Your task to perform on an android device: open app "Google Play Games" Image 0: 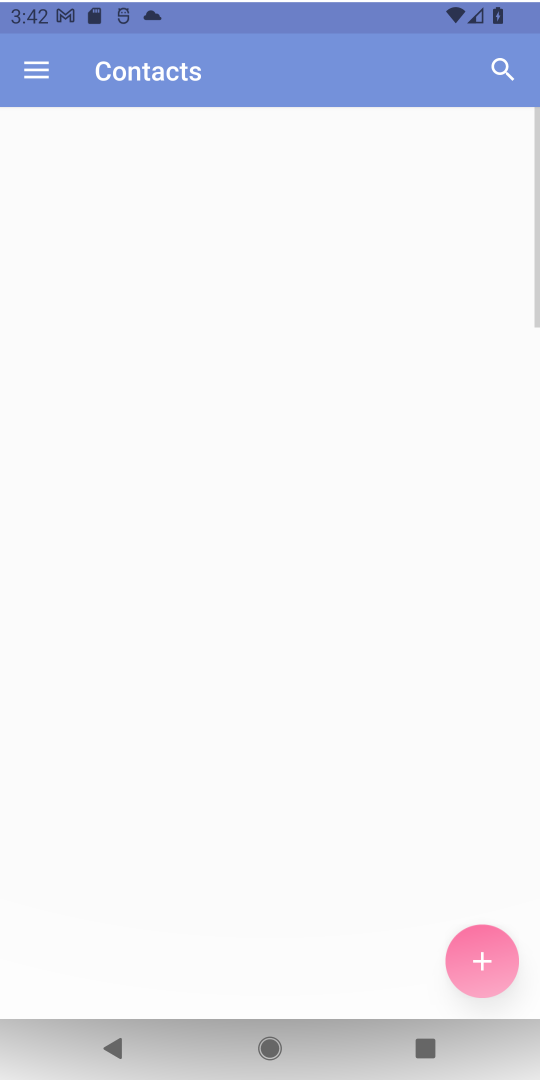
Step 0: press back button
Your task to perform on an android device: open app "Google Play Games" Image 1: 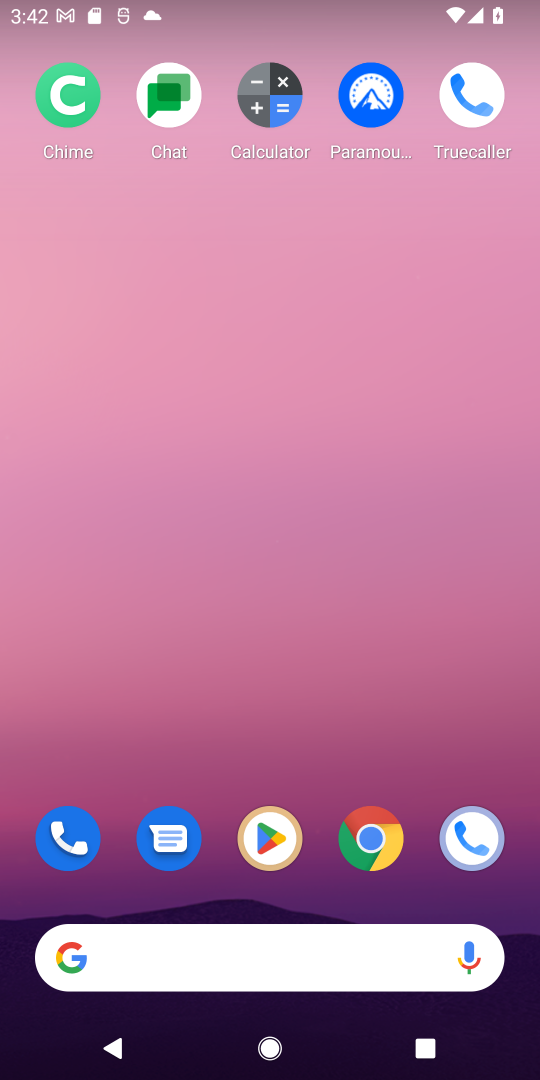
Step 1: click (276, 825)
Your task to perform on an android device: open app "Google Play Games" Image 2: 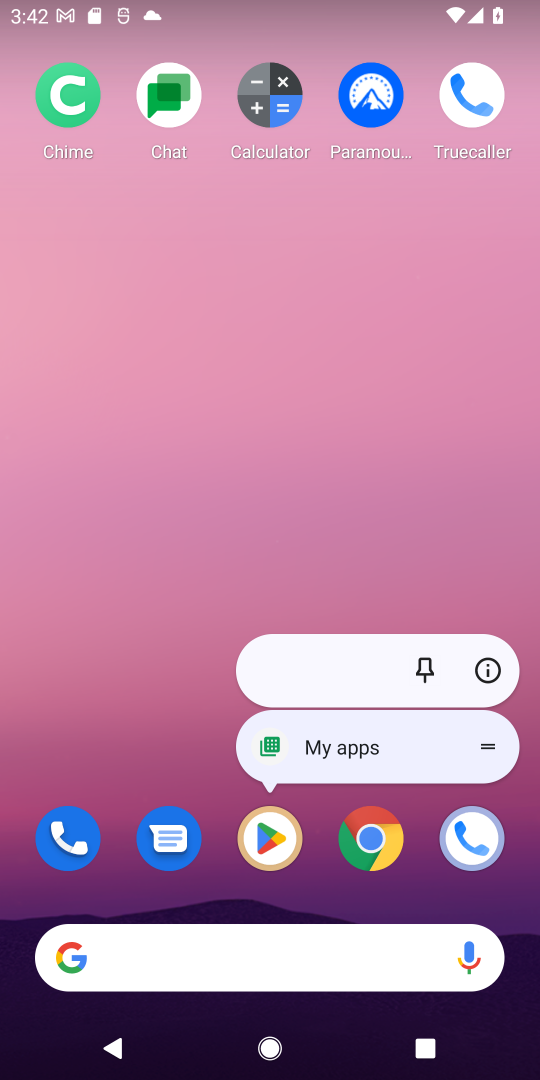
Step 2: click (265, 882)
Your task to perform on an android device: open app "Google Play Games" Image 3: 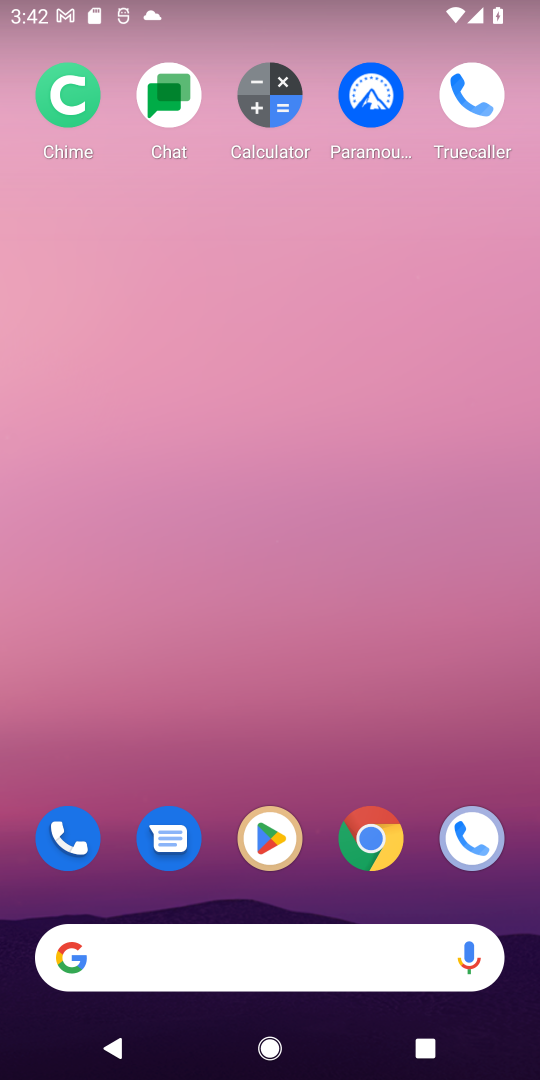
Step 3: click (276, 848)
Your task to perform on an android device: open app "Google Play Games" Image 4: 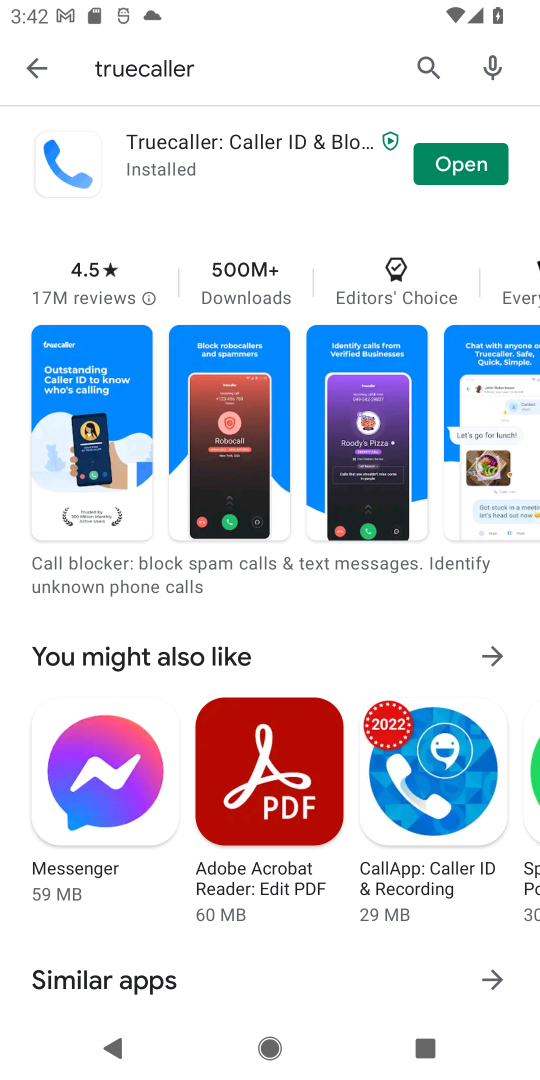
Step 4: click (425, 73)
Your task to perform on an android device: open app "Google Play Games" Image 5: 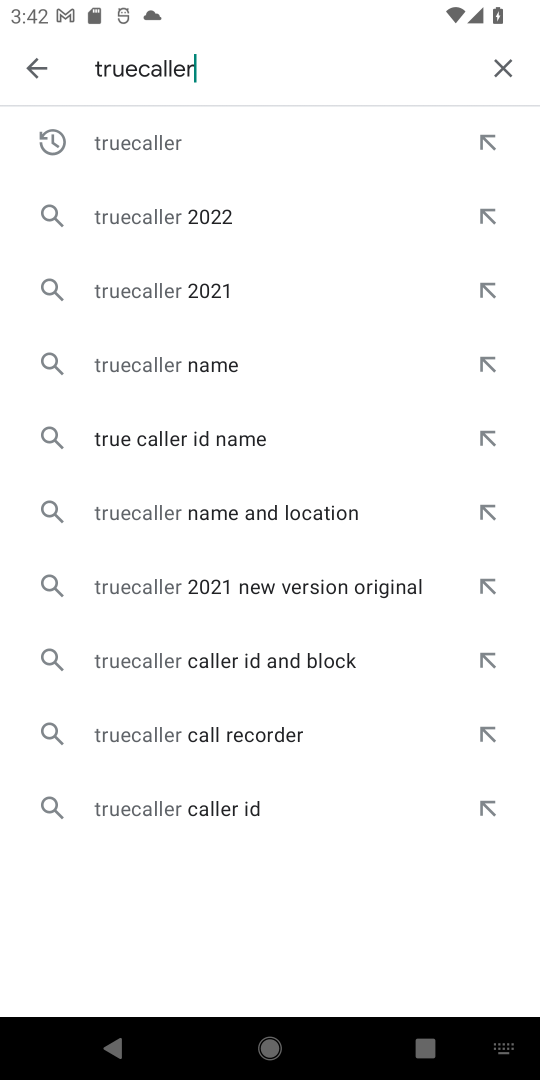
Step 5: click (493, 67)
Your task to perform on an android device: open app "Google Play Games" Image 6: 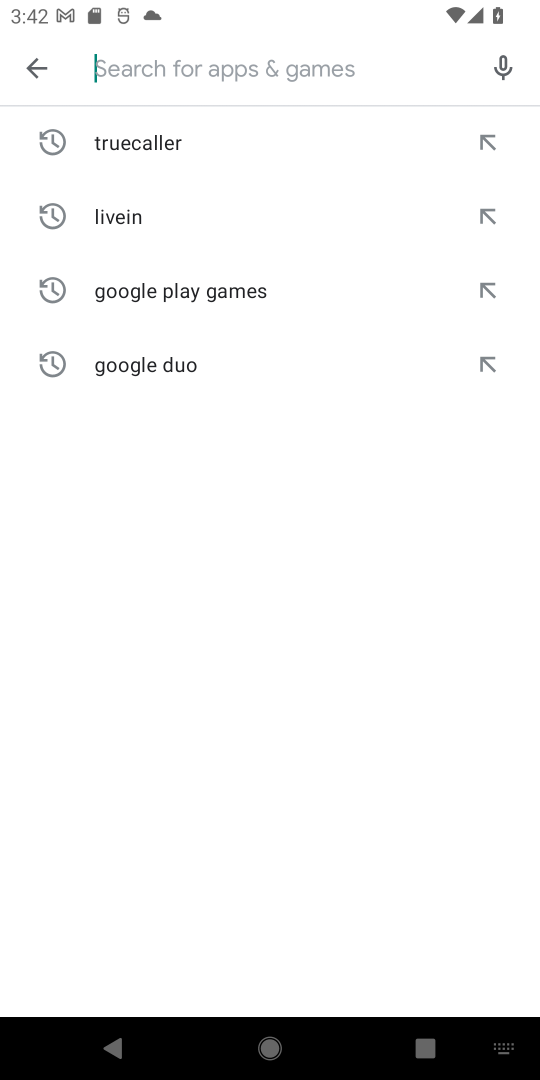
Step 6: click (191, 72)
Your task to perform on an android device: open app "Google Play Games" Image 7: 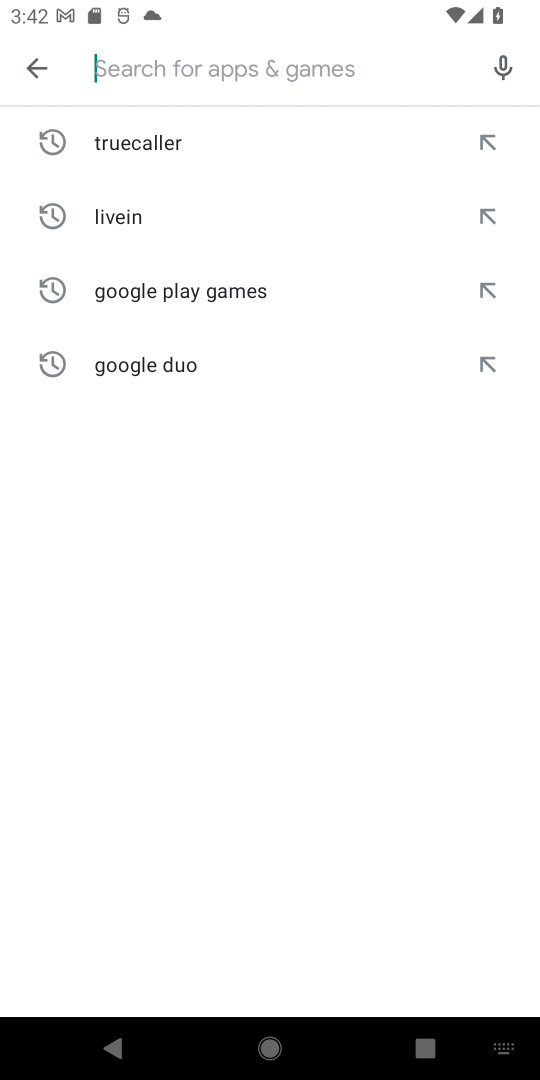
Step 7: type "Google Play Games"
Your task to perform on an android device: open app "Google Play Games" Image 8: 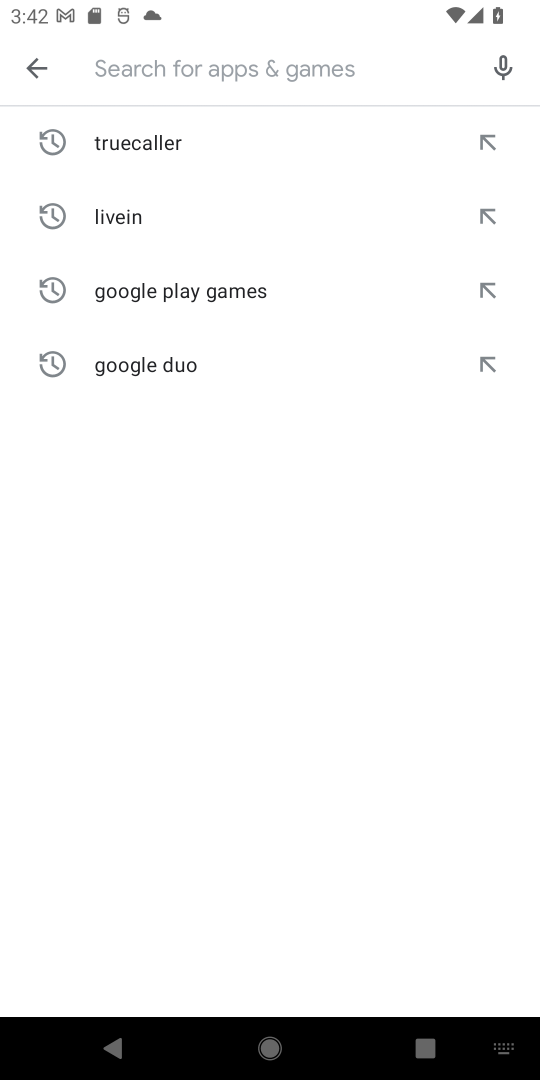
Step 8: click (252, 632)
Your task to perform on an android device: open app "Google Play Games" Image 9: 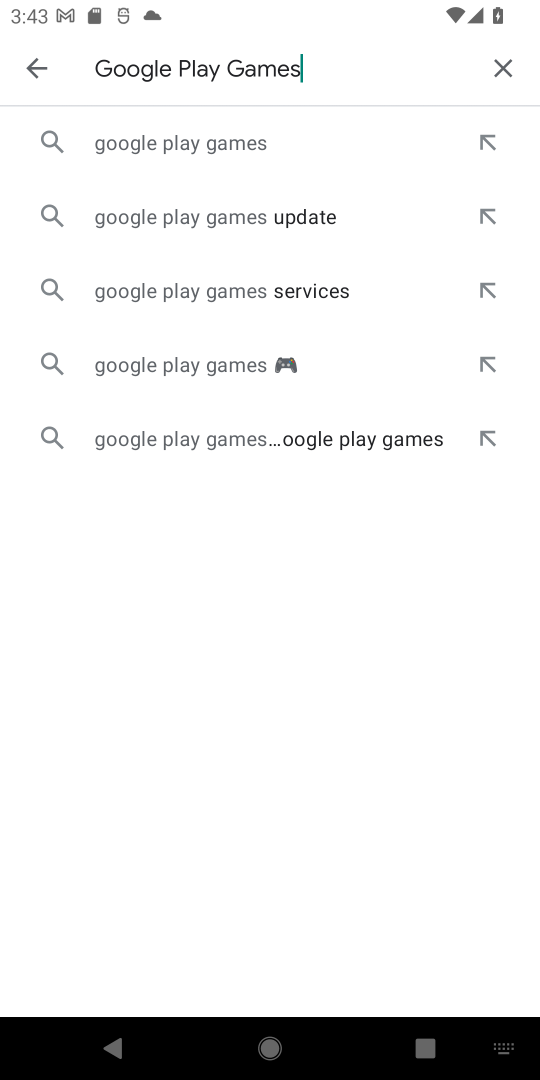
Step 9: click (238, 130)
Your task to perform on an android device: open app "Google Play Games" Image 10: 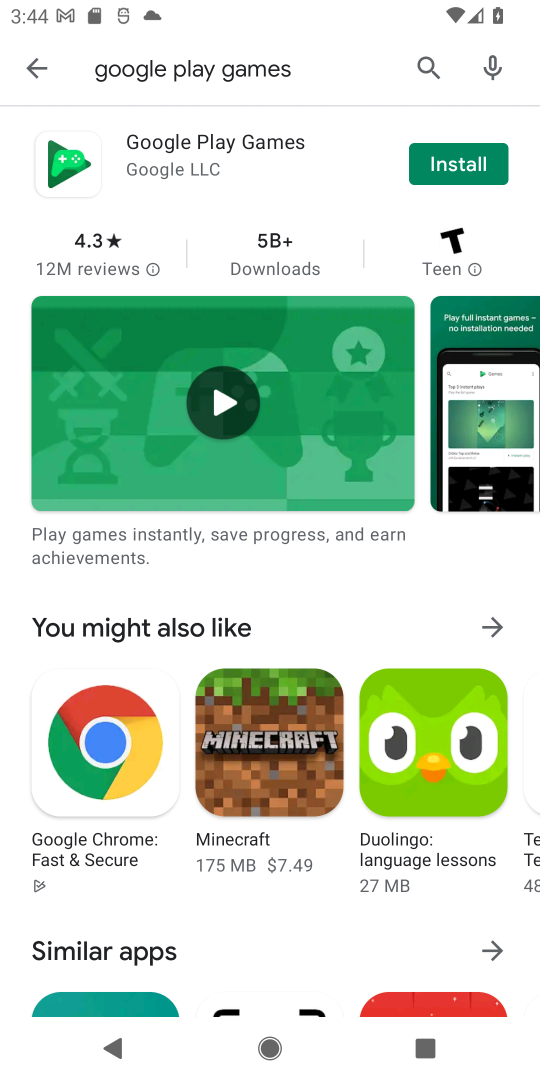
Step 10: task complete